Your task to perform on an android device: Go to Reddit.com Image 0: 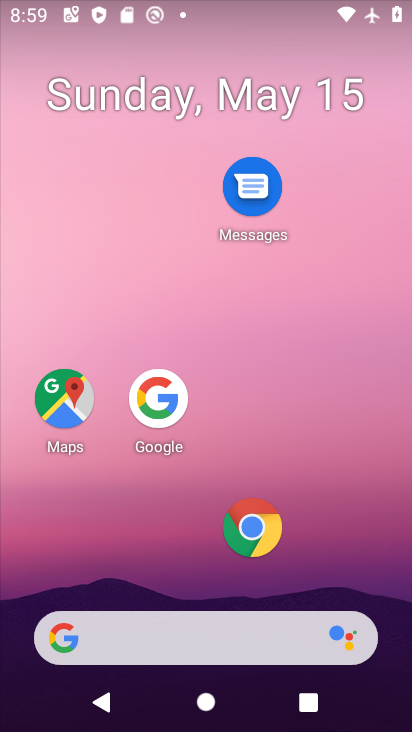
Step 0: press home button
Your task to perform on an android device: Go to Reddit.com Image 1: 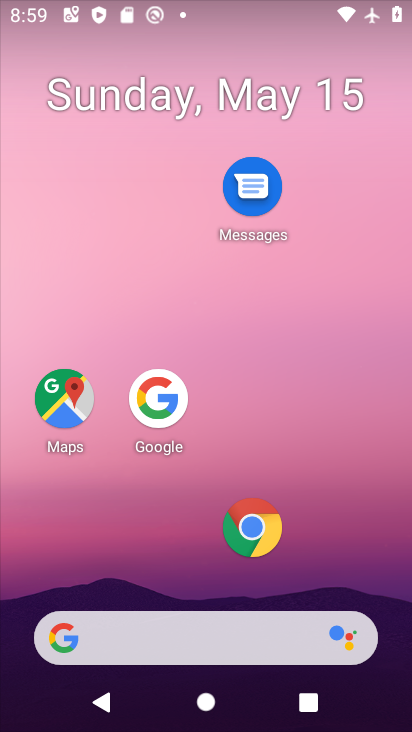
Step 1: drag from (141, 640) to (337, 87)
Your task to perform on an android device: Go to Reddit.com Image 2: 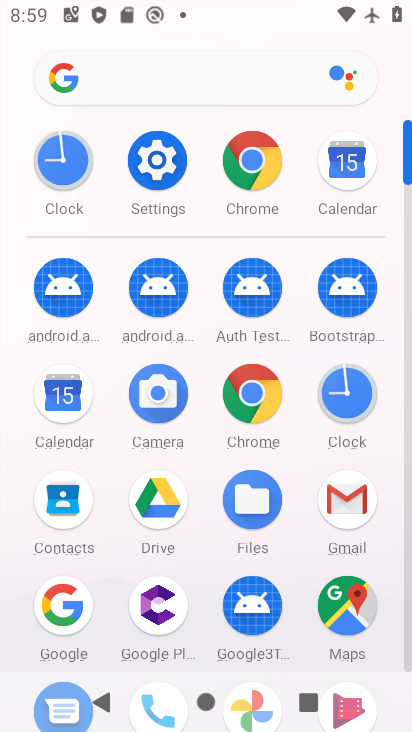
Step 2: click (253, 159)
Your task to perform on an android device: Go to Reddit.com Image 3: 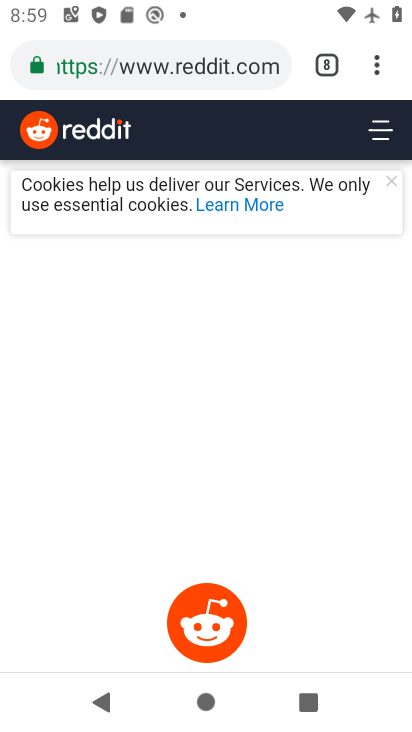
Step 3: task complete